Your task to perform on an android device: Open the stopwatch Image 0: 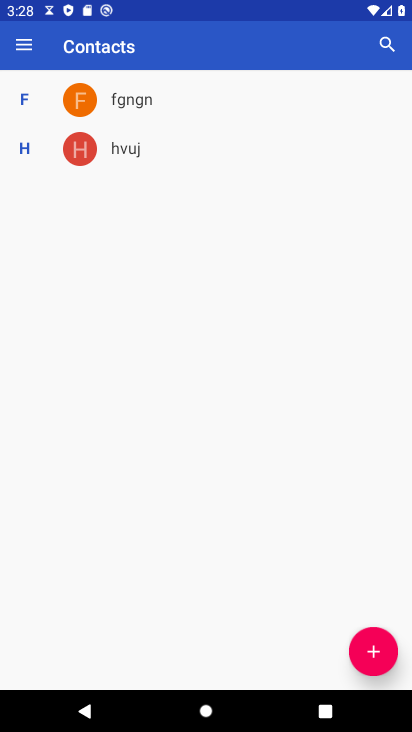
Step 0: press home button
Your task to perform on an android device: Open the stopwatch Image 1: 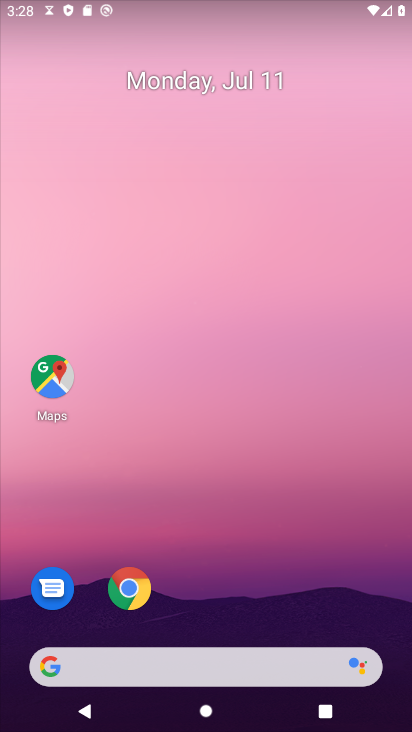
Step 1: drag from (256, 597) to (249, 332)
Your task to perform on an android device: Open the stopwatch Image 2: 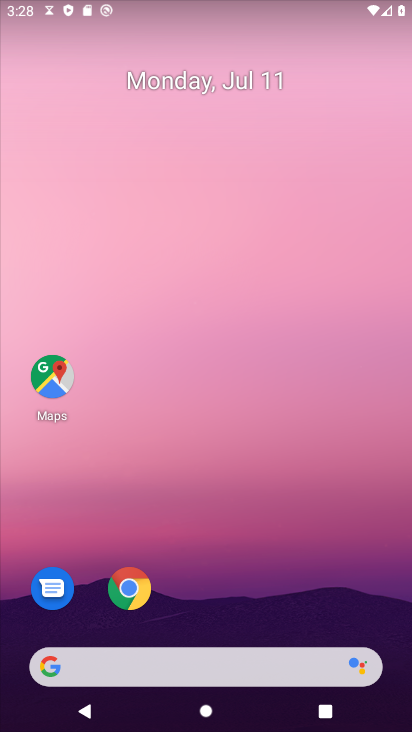
Step 2: drag from (249, 569) to (223, 46)
Your task to perform on an android device: Open the stopwatch Image 3: 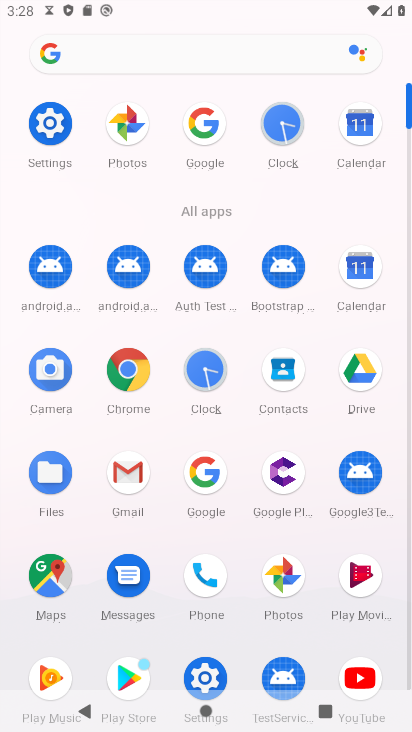
Step 3: click (289, 128)
Your task to perform on an android device: Open the stopwatch Image 4: 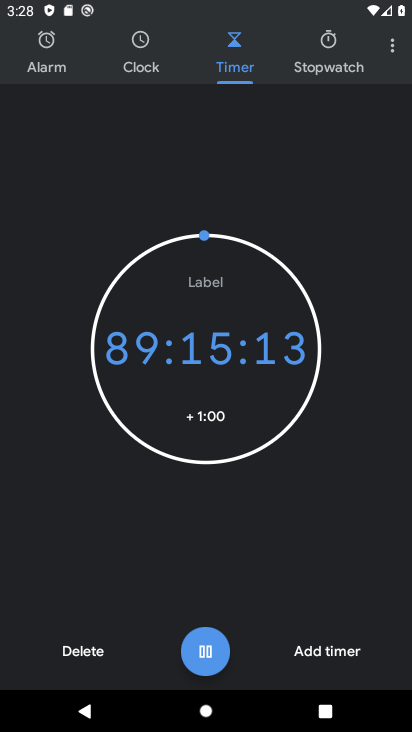
Step 4: click (324, 39)
Your task to perform on an android device: Open the stopwatch Image 5: 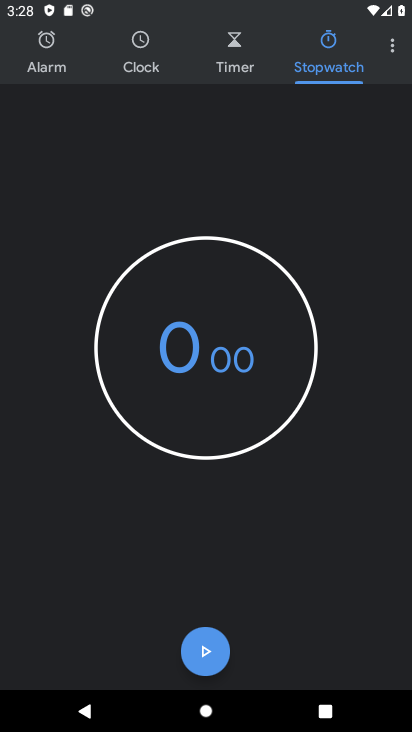
Step 5: click (194, 661)
Your task to perform on an android device: Open the stopwatch Image 6: 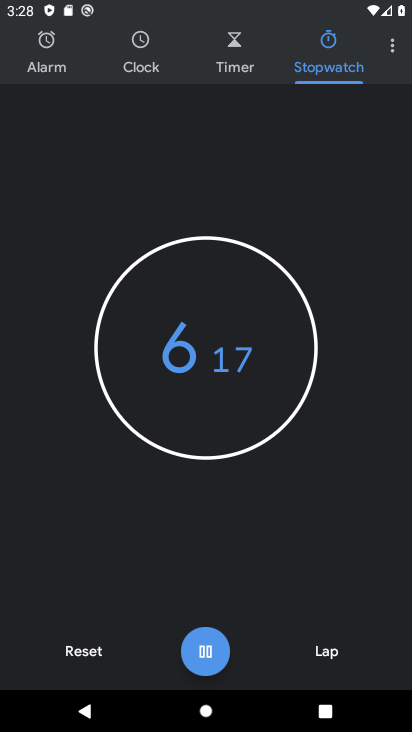
Step 6: task complete